Your task to perform on an android device: Open Wikipedia Image 0: 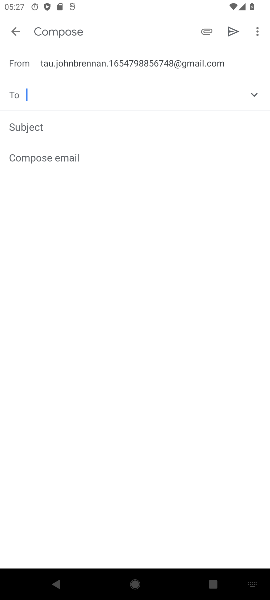
Step 0: press home button
Your task to perform on an android device: Open Wikipedia Image 1: 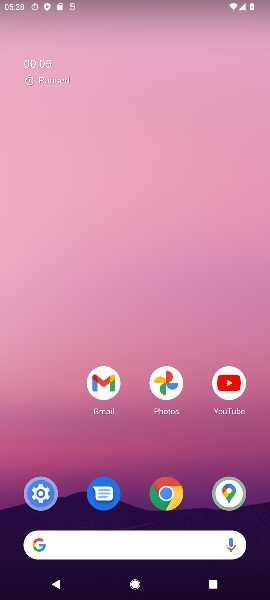
Step 1: click (164, 493)
Your task to perform on an android device: Open Wikipedia Image 2: 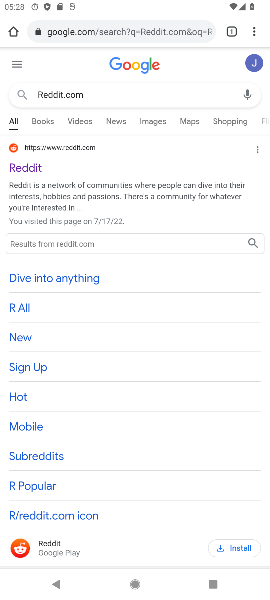
Step 2: click (118, 29)
Your task to perform on an android device: Open Wikipedia Image 3: 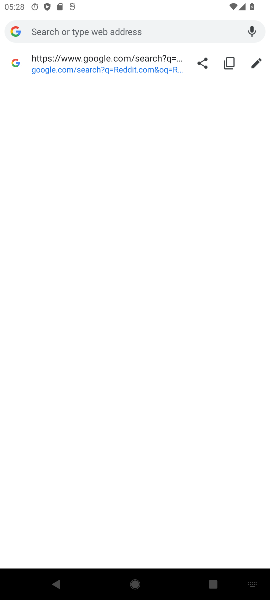
Step 3: type "Wikipedia"
Your task to perform on an android device: Open Wikipedia Image 4: 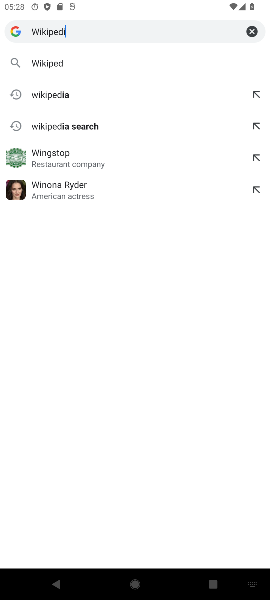
Step 4: type ""
Your task to perform on an android device: Open Wikipedia Image 5: 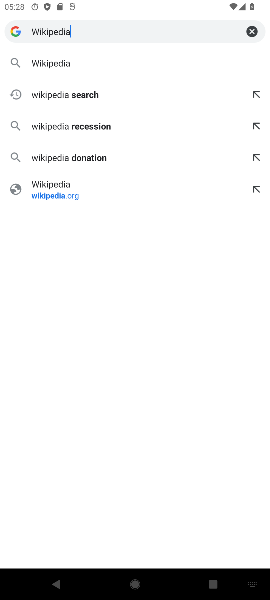
Step 5: click (55, 59)
Your task to perform on an android device: Open Wikipedia Image 6: 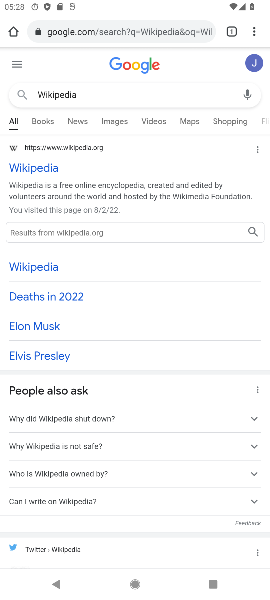
Step 6: task complete